Your task to perform on an android device: all mails in gmail Image 0: 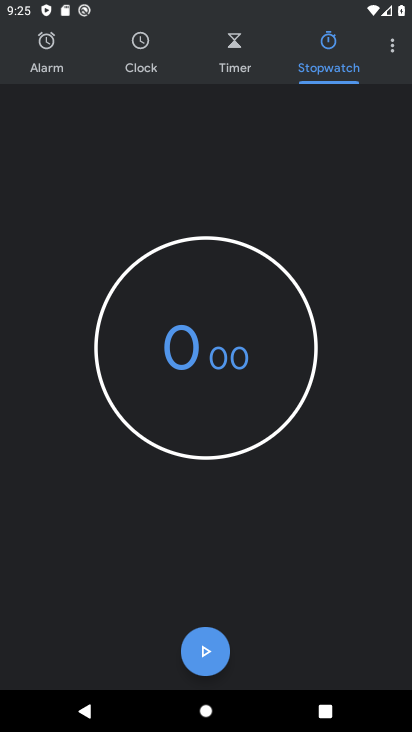
Step 0: press home button
Your task to perform on an android device: all mails in gmail Image 1: 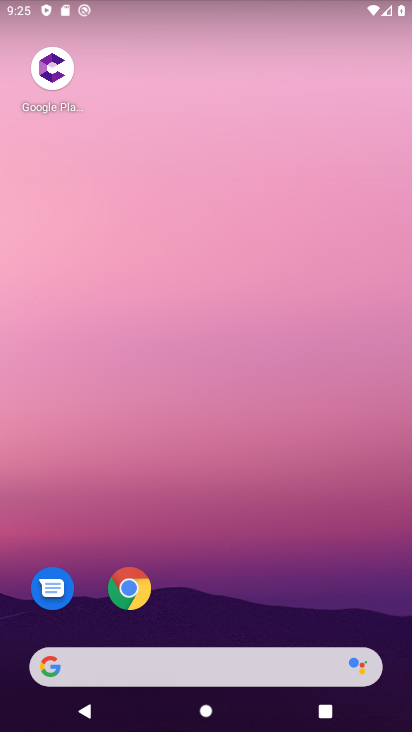
Step 1: drag from (157, 552) to (157, 302)
Your task to perform on an android device: all mails in gmail Image 2: 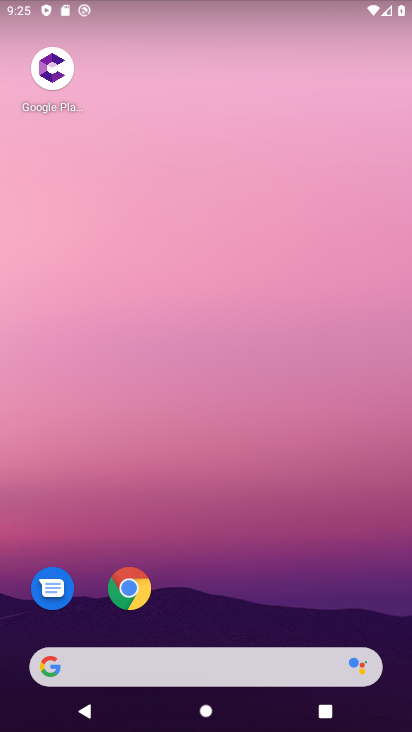
Step 2: drag from (178, 652) to (244, 309)
Your task to perform on an android device: all mails in gmail Image 3: 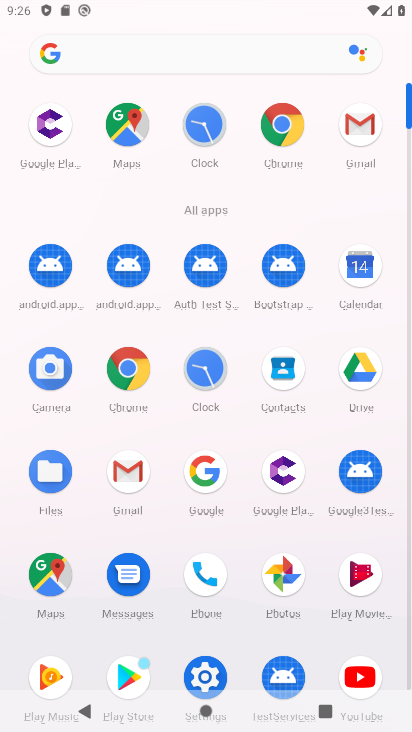
Step 3: click (355, 129)
Your task to perform on an android device: all mails in gmail Image 4: 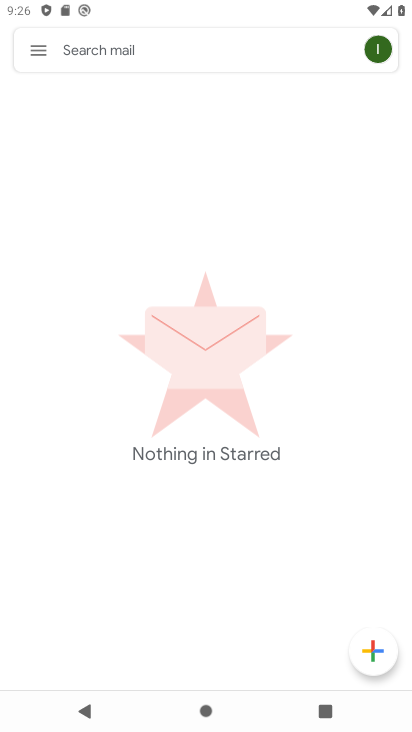
Step 4: click (32, 51)
Your task to perform on an android device: all mails in gmail Image 5: 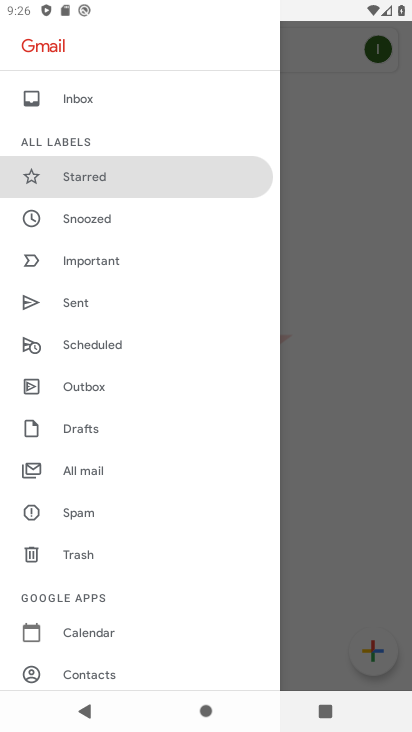
Step 5: click (71, 476)
Your task to perform on an android device: all mails in gmail Image 6: 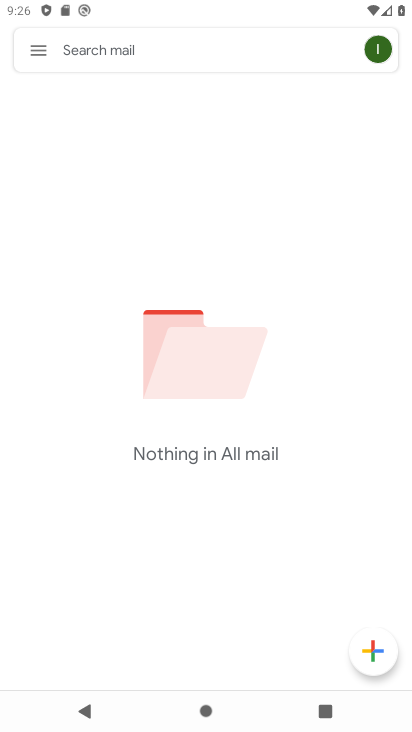
Step 6: task complete